Your task to perform on an android device: install app "Flipkart Online Shopping App" Image 0: 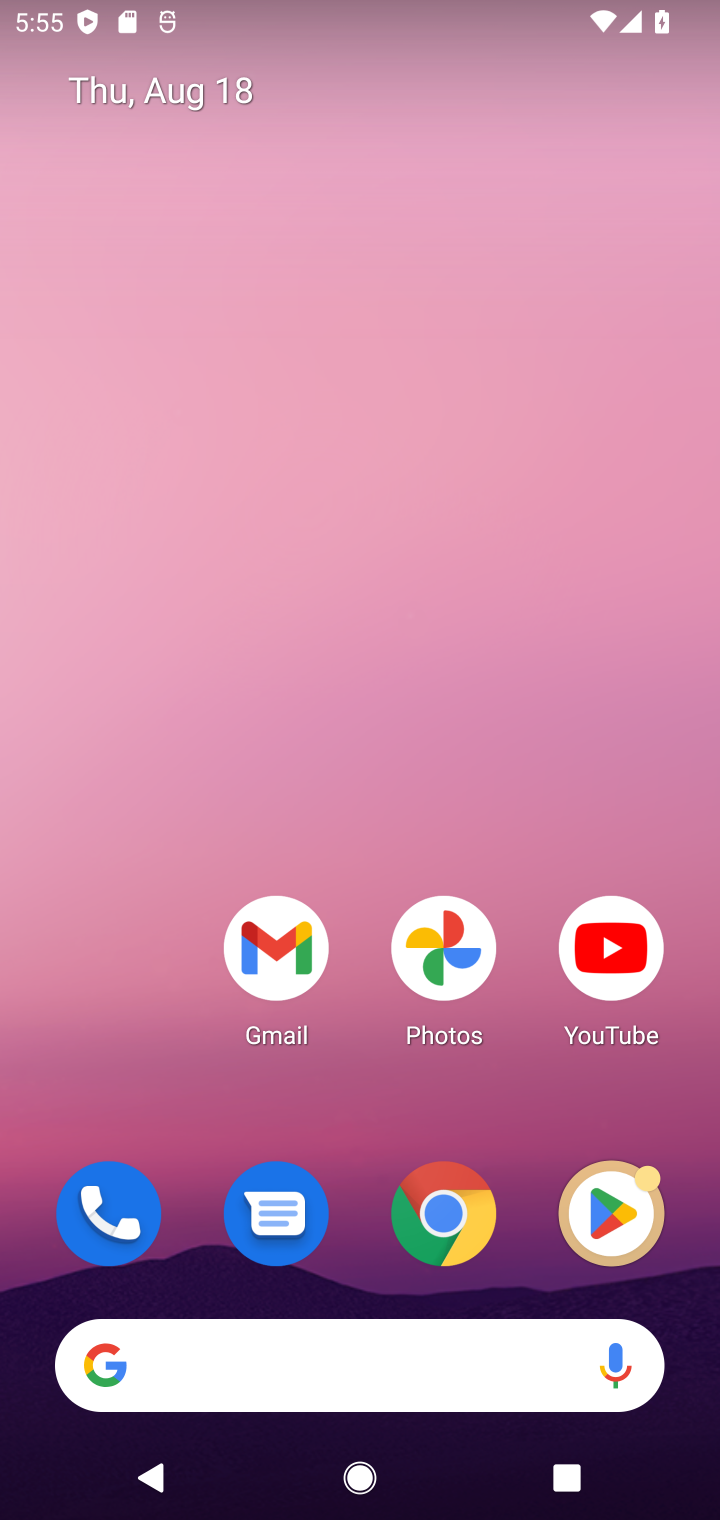
Step 0: press home button
Your task to perform on an android device: install app "Flipkart Online Shopping App" Image 1: 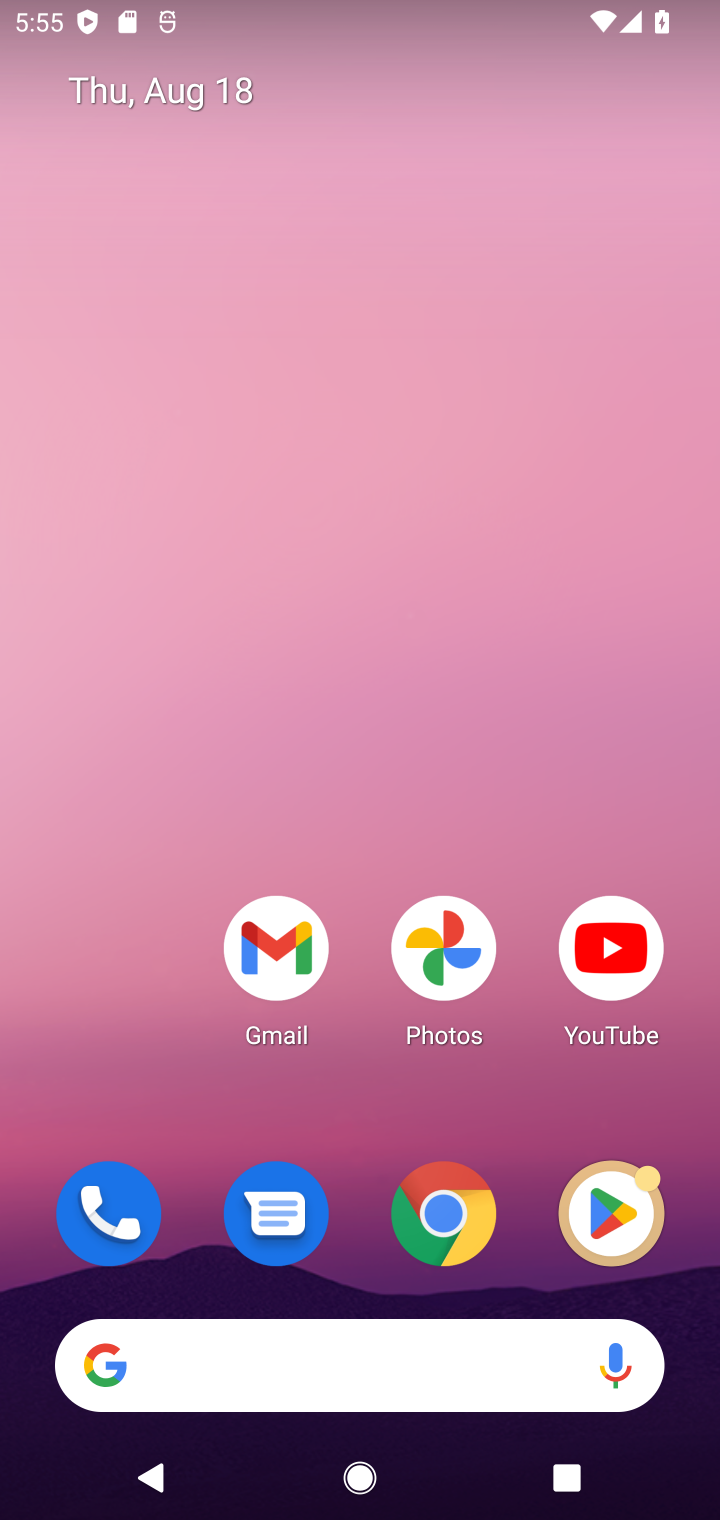
Step 1: press home button
Your task to perform on an android device: install app "Flipkart Online Shopping App" Image 2: 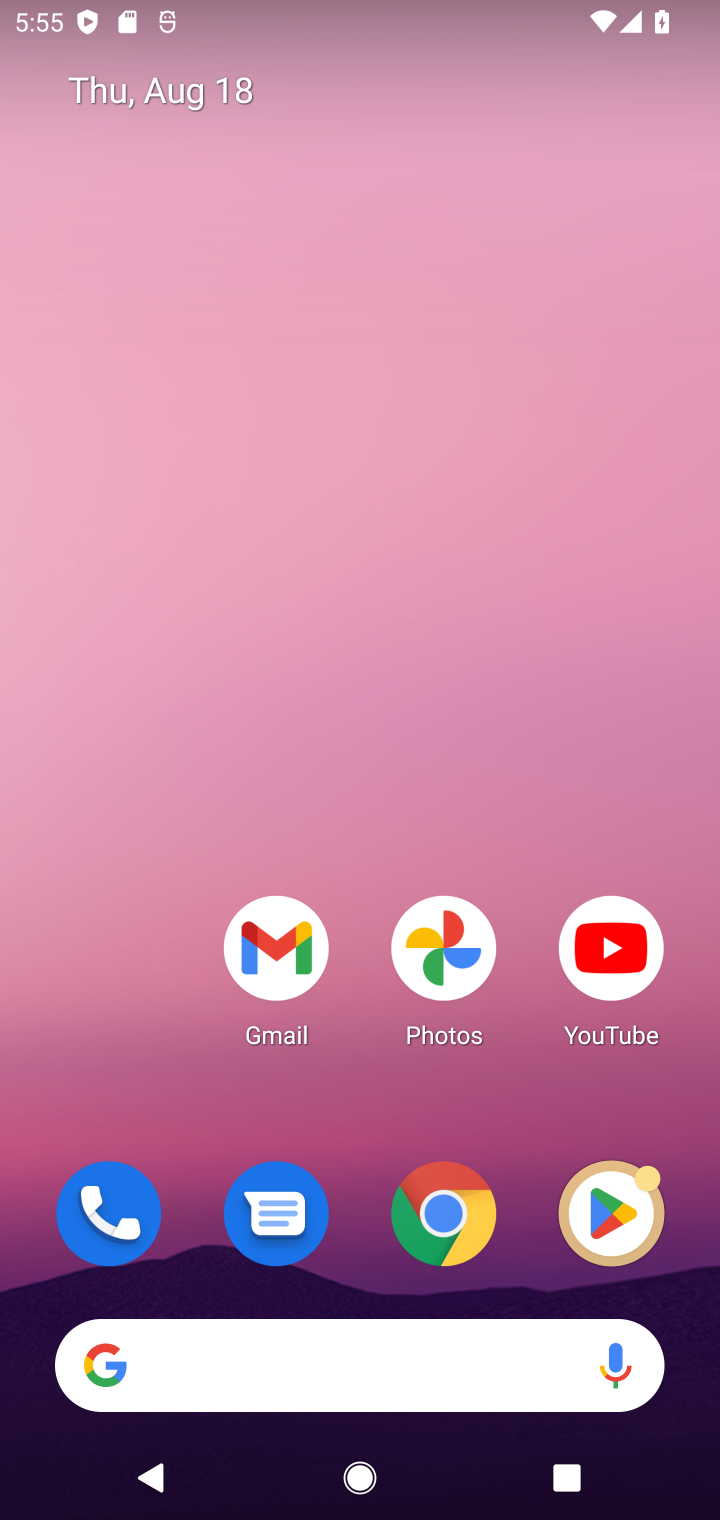
Step 2: click (604, 1209)
Your task to perform on an android device: install app "Flipkart Online Shopping App" Image 3: 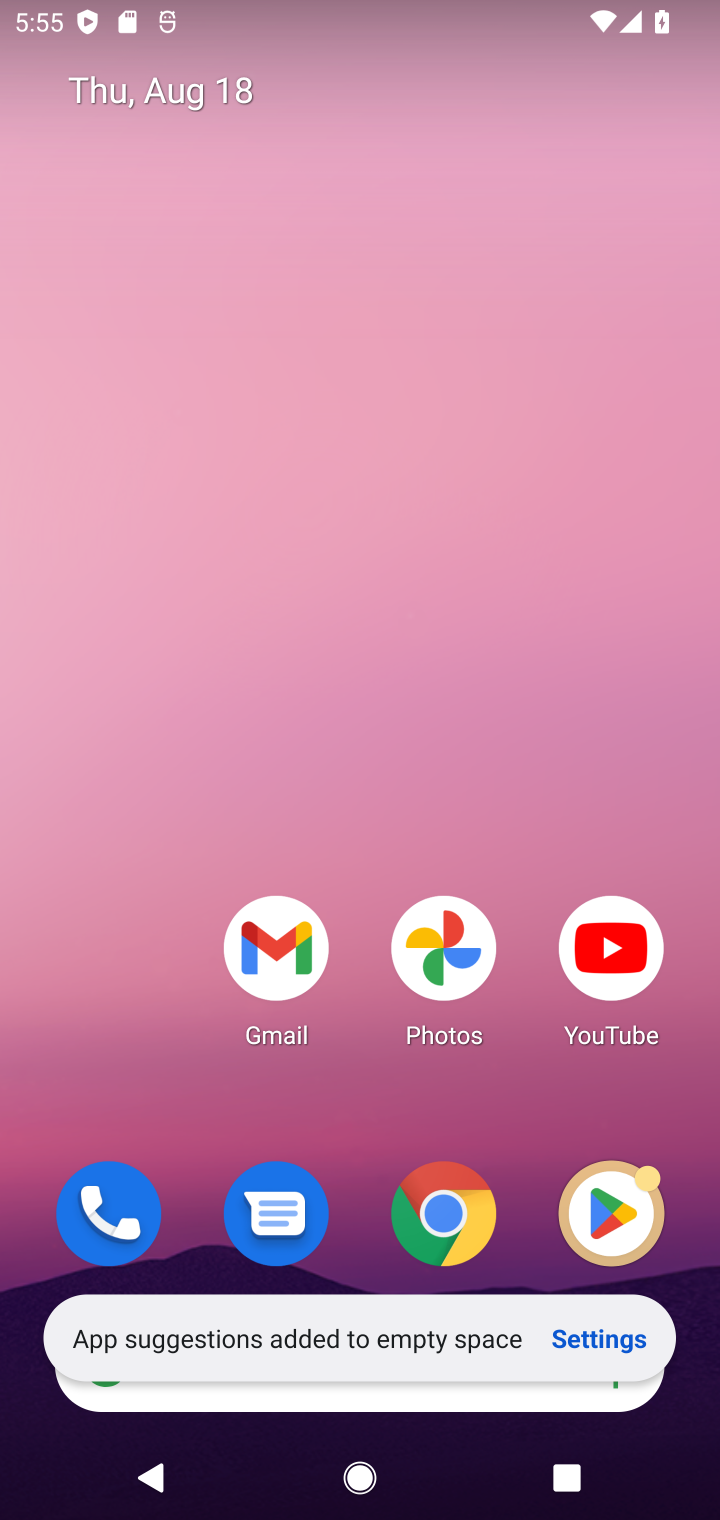
Step 3: click (607, 1208)
Your task to perform on an android device: install app "Flipkart Online Shopping App" Image 4: 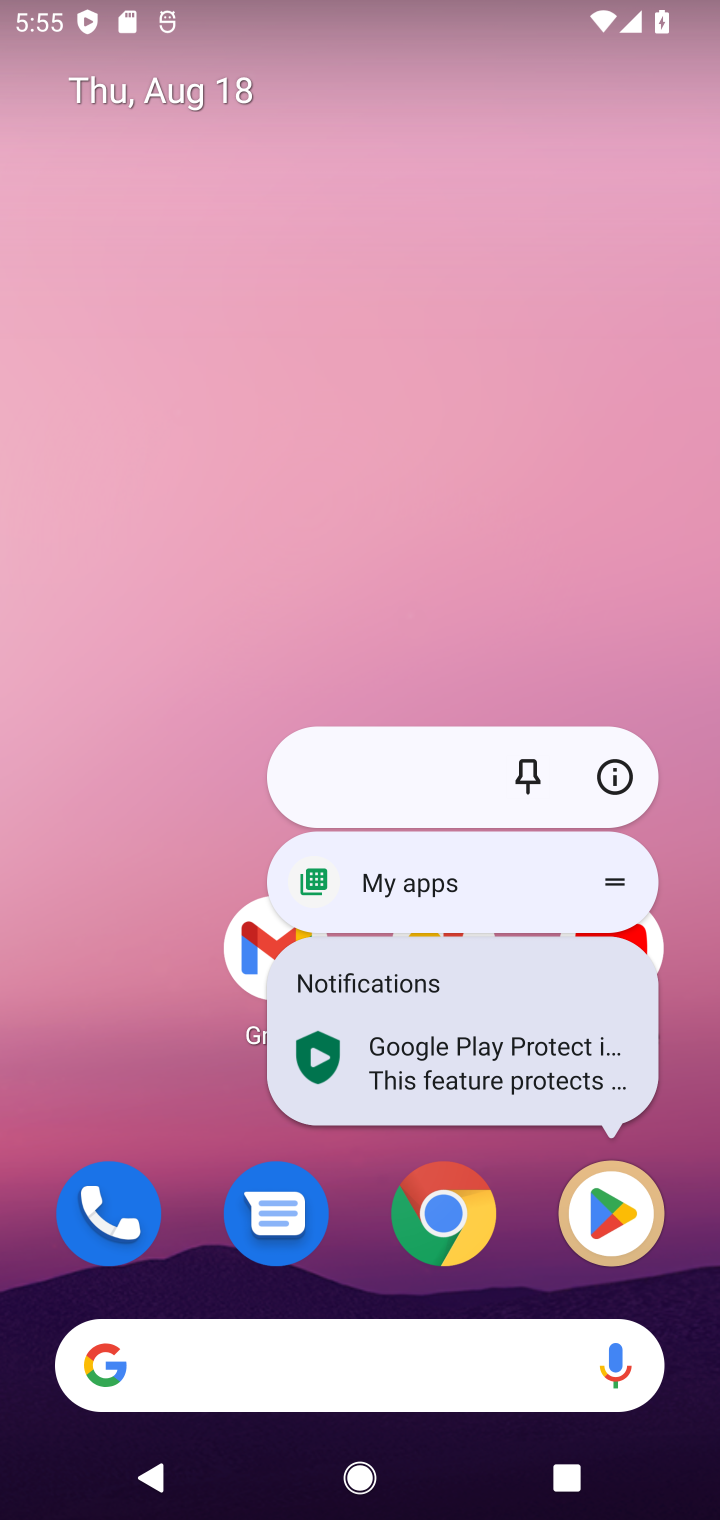
Step 4: click (602, 1202)
Your task to perform on an android device: install app "Flipkart Online Shopping App" Image 5: 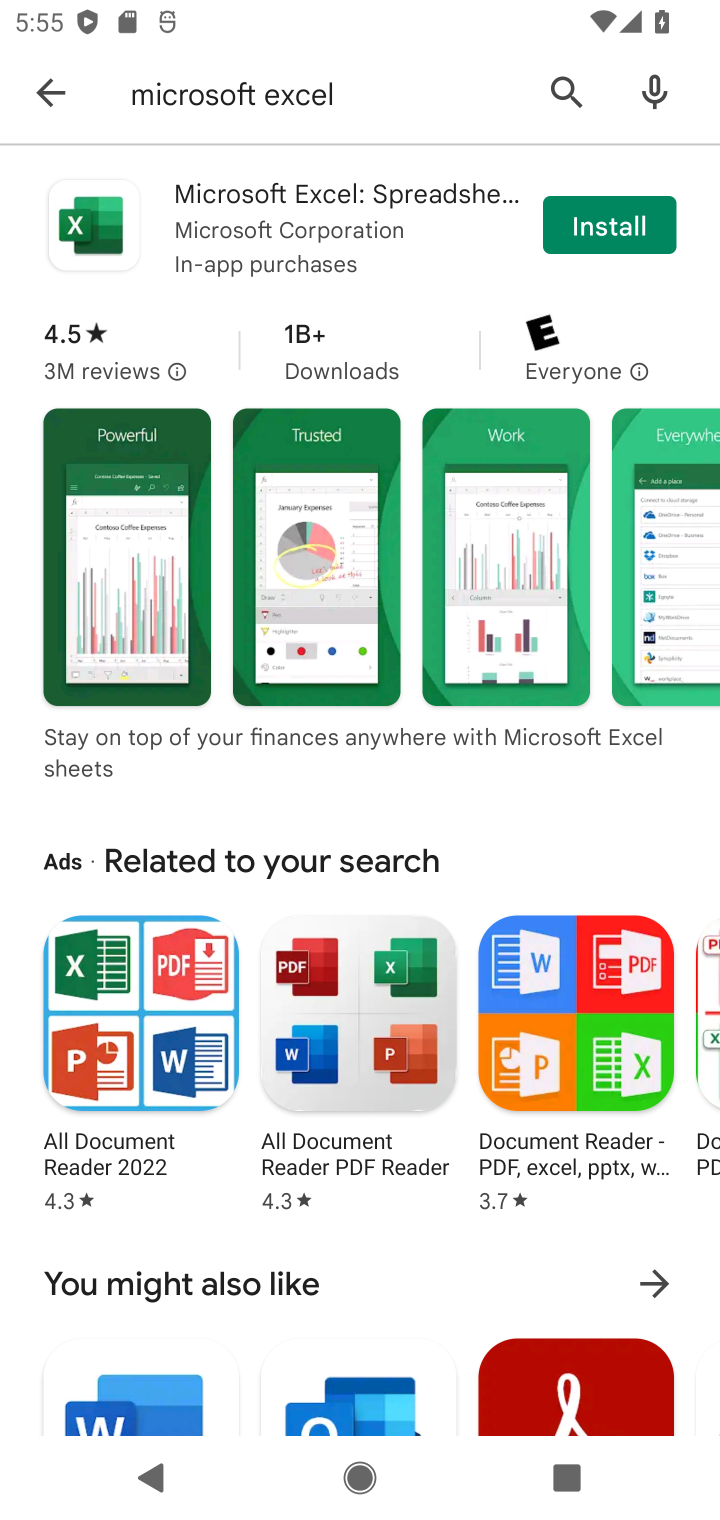
Step 5: click (549, 95)
Your task to perform on an android device: install app "Flipkart Online Shopping App" Image 6: 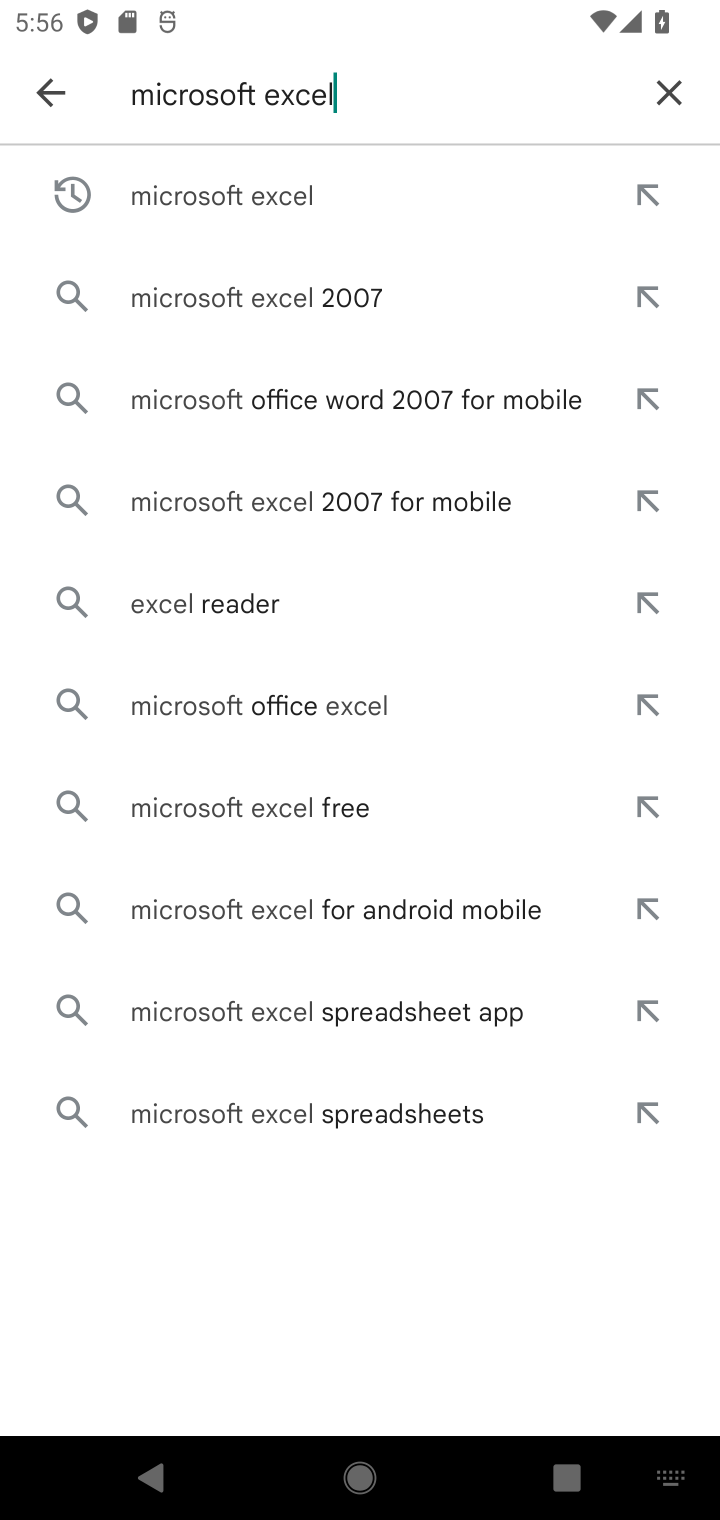
Step 6: click (672, 104)
Your task to perform on an android device: install app "Flipkart Online Shopping App" Image 7: 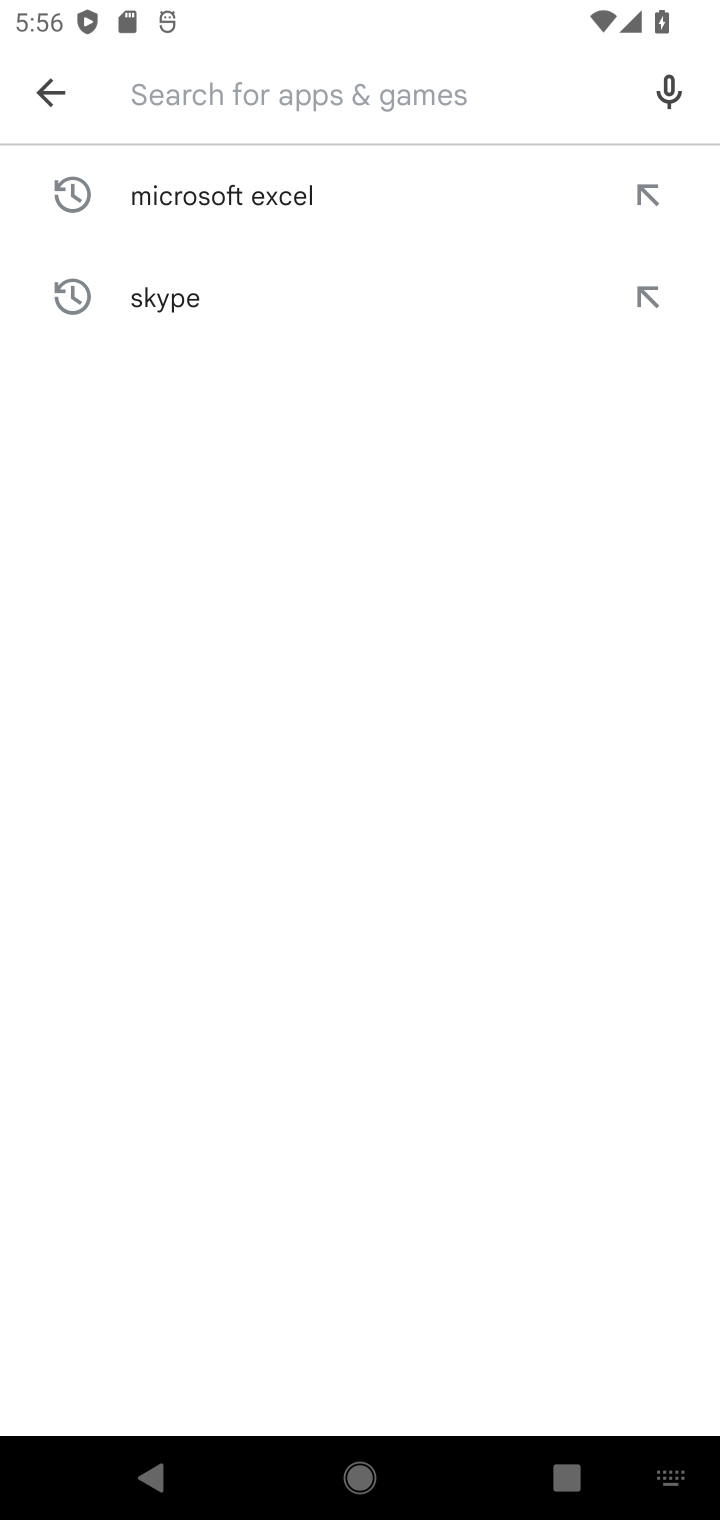
Step 7: type "Flipkart Online Shopping App"
Your task to perform on an android device: install app "Flipkart Online Shopping App" Image 8: 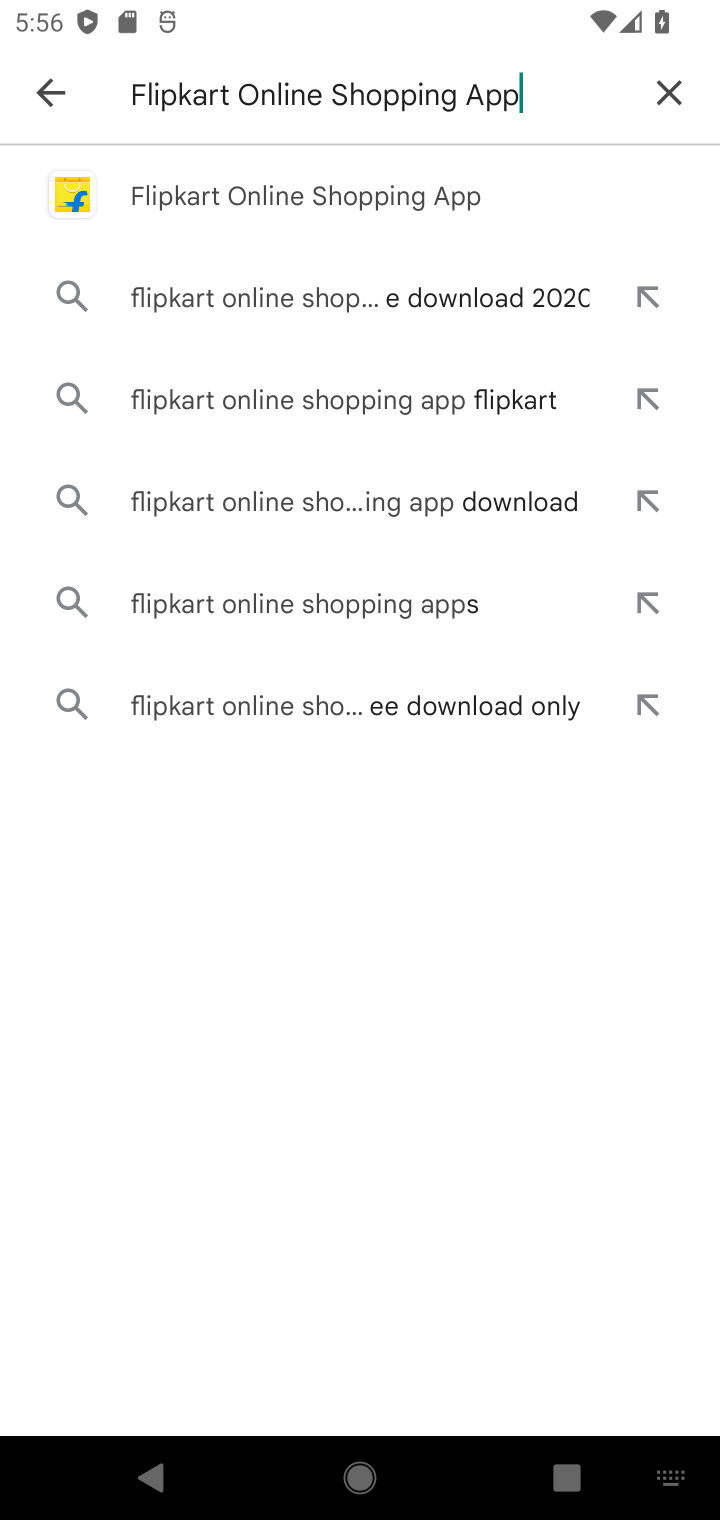
Step 8: click (127, 194)
Your task to perform on an android device: install app "Flipkart Online Shopping App" Image 9: 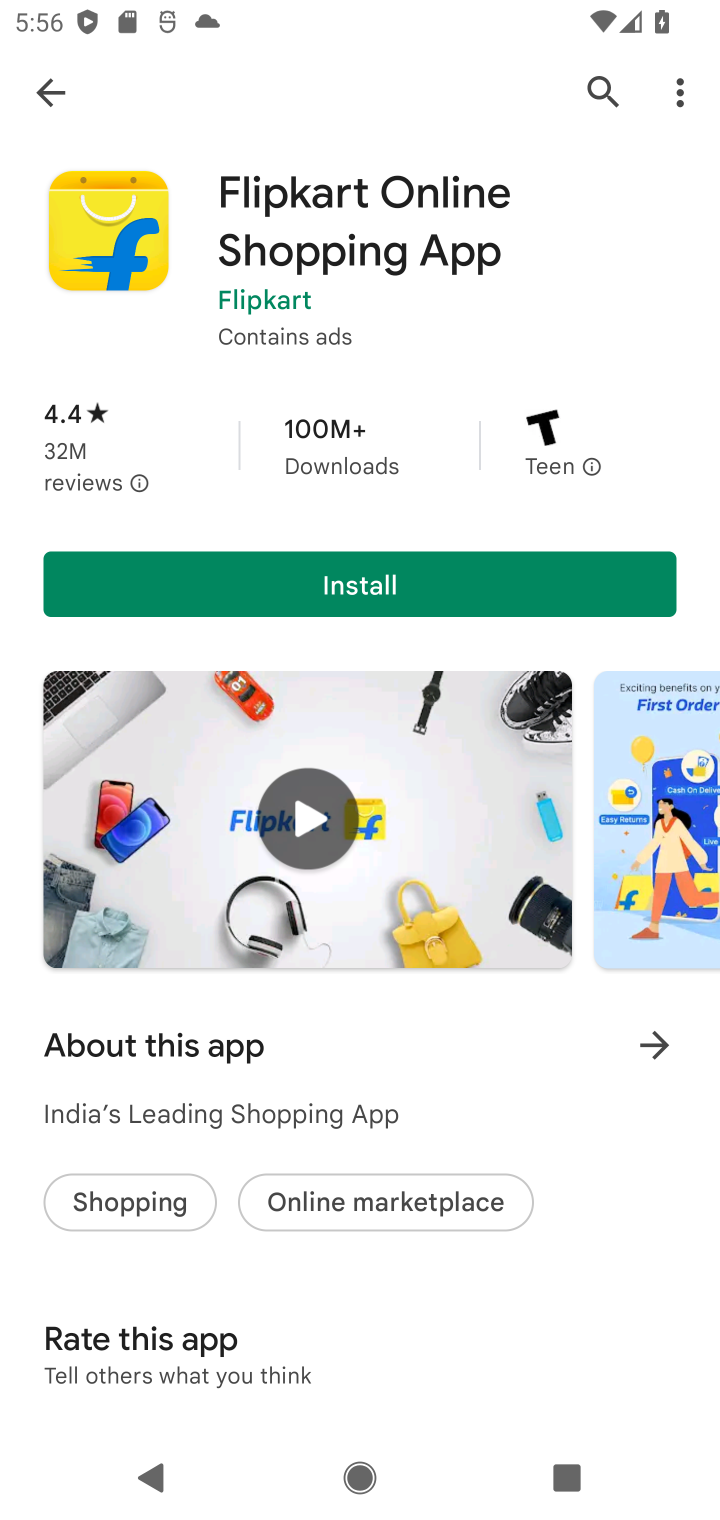
Step 9: click (356, 583)
Your task to perform on an android device: install app "Flipkart Online Shopping App" Image 10: 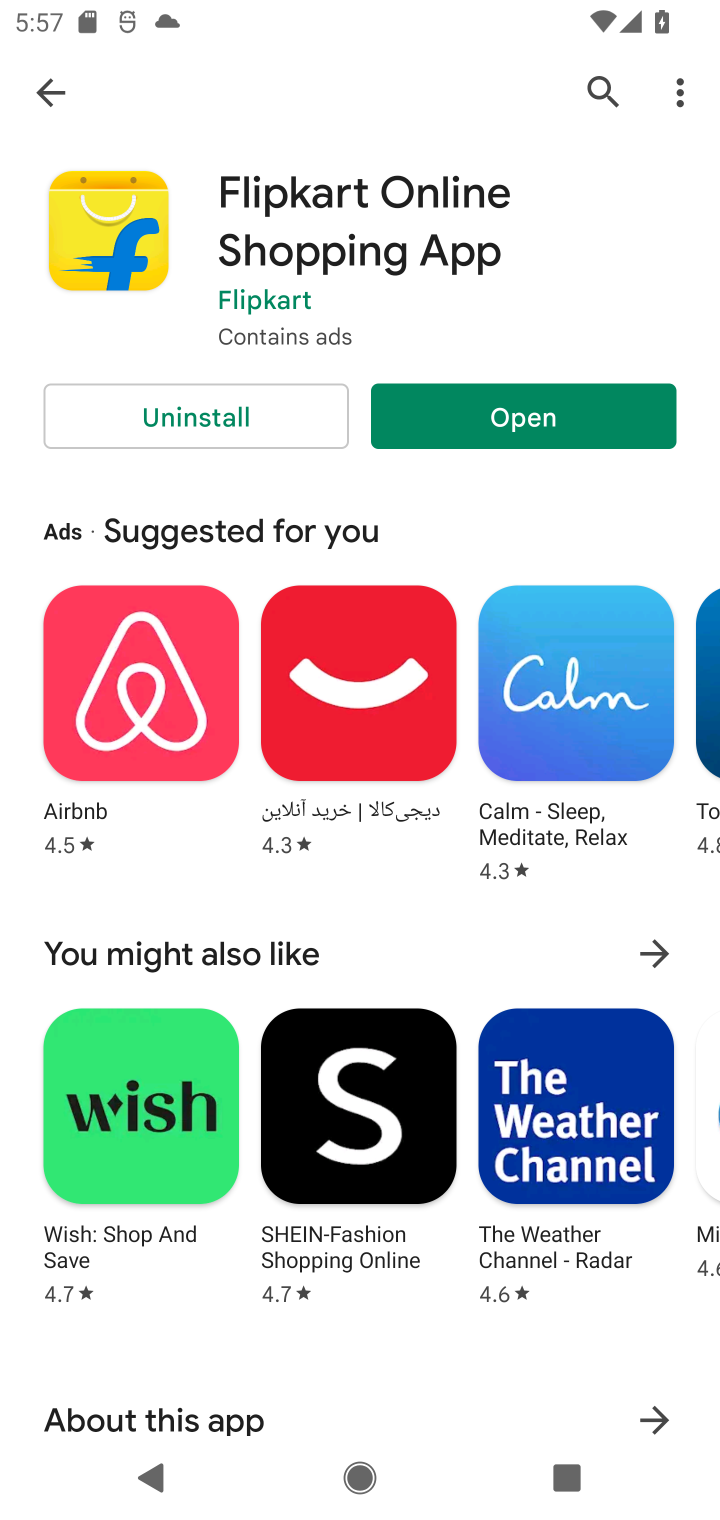
Step 10: click (575, 424)
Your task to perform on an android device: install app "Flipkart Online Shopping App" Image 11: 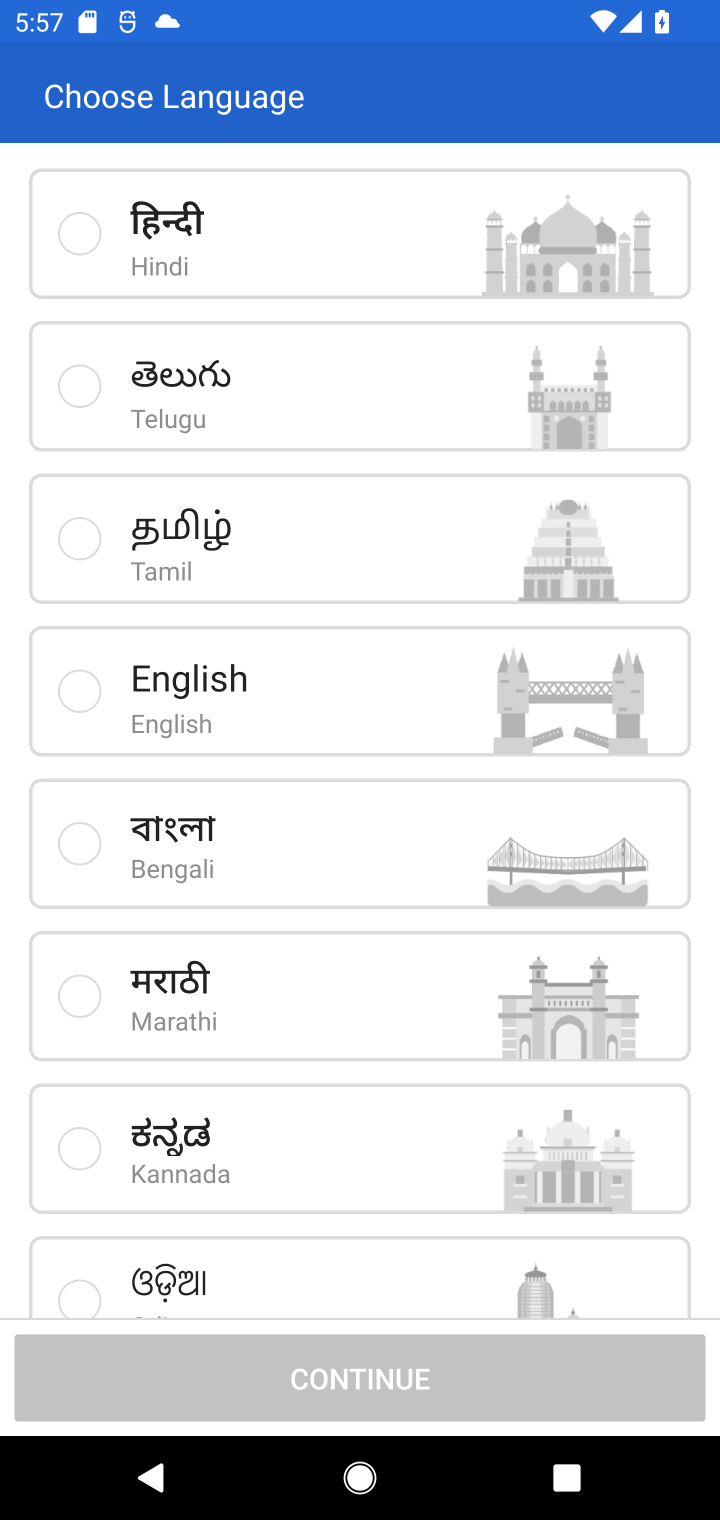
Step 11: click (84, 681)
Your task to perform on an android device: install app "Flipkart Online Shopping App" Image 12: 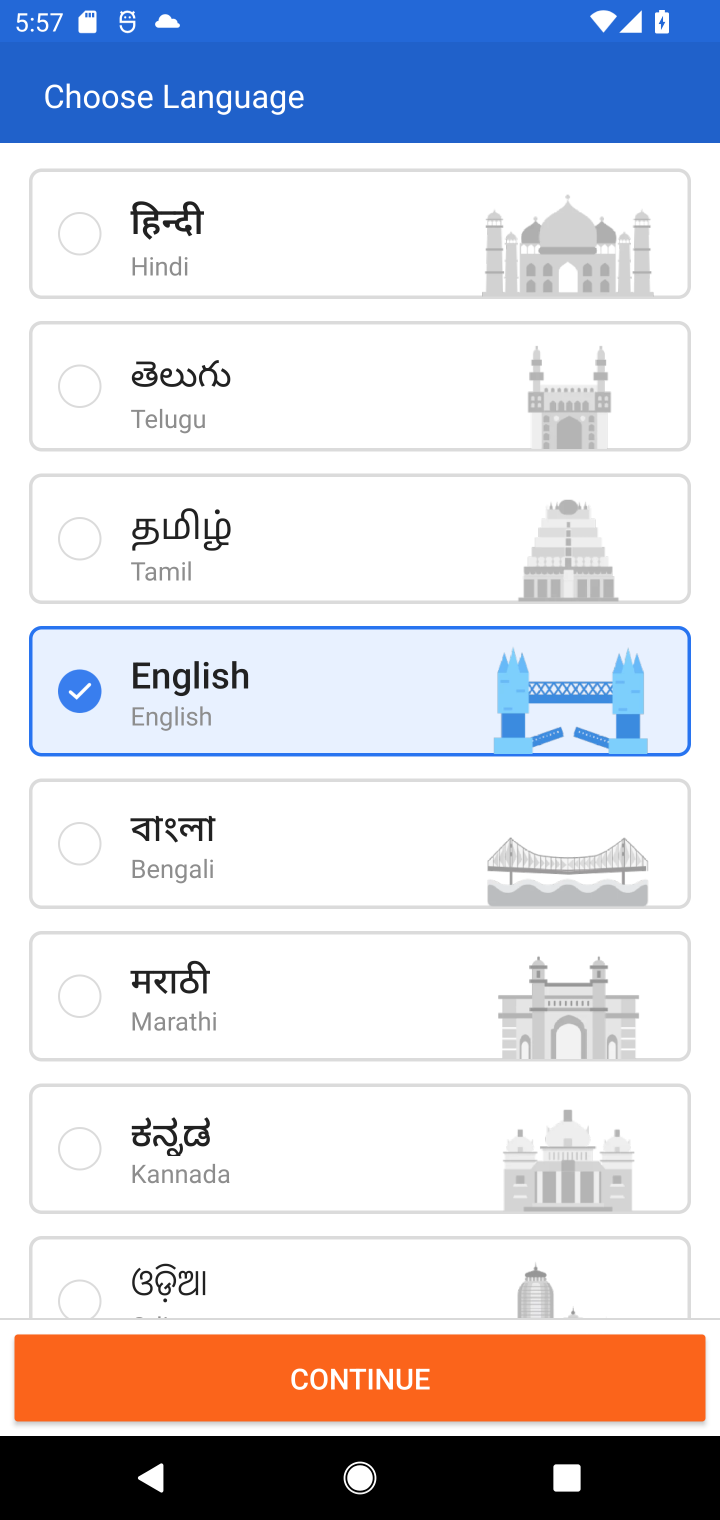
Step 12: click (358, 1369)
Your task to perform on an android device: install app "Flipkart Online Shopping App" Image 13: 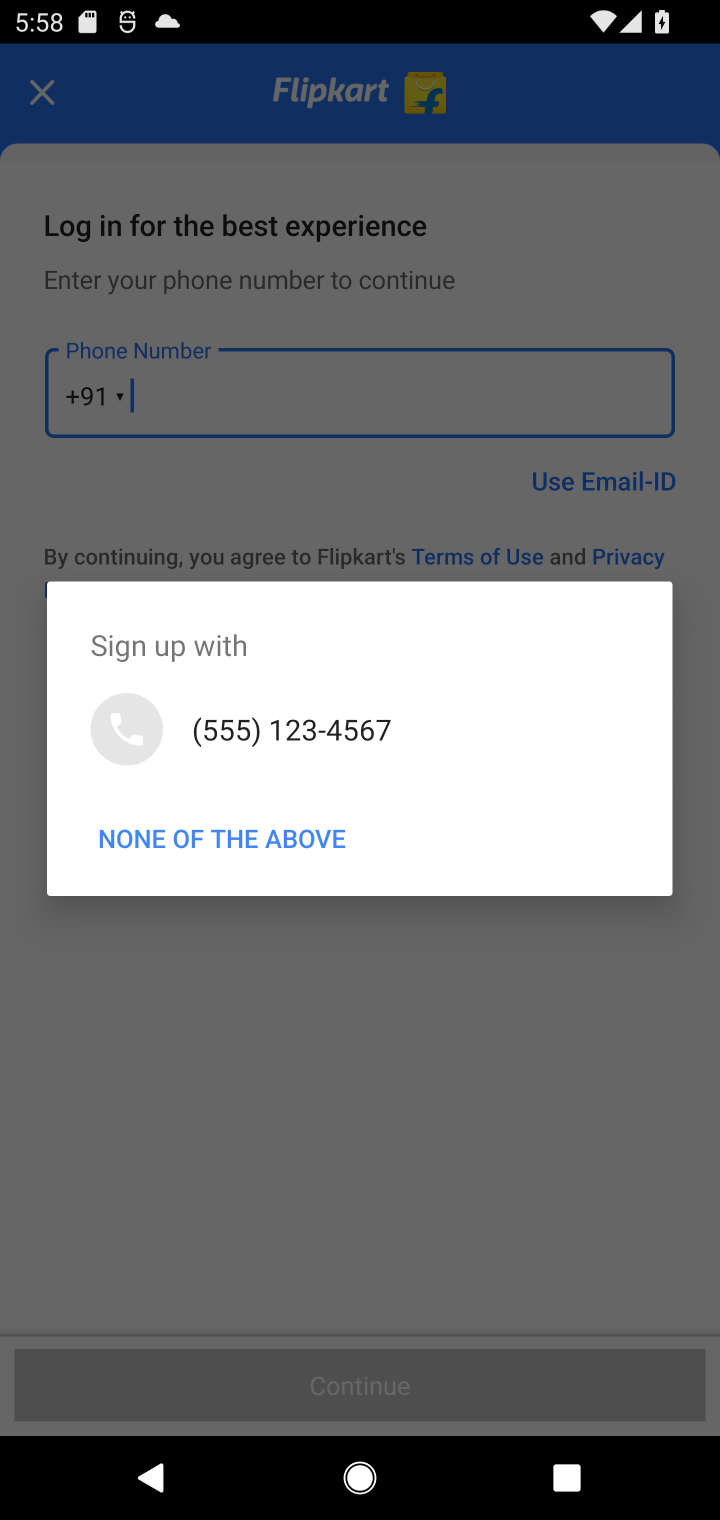
Step 13: task complete